Your task to perform on an android device: turn notification dots on Image 0: 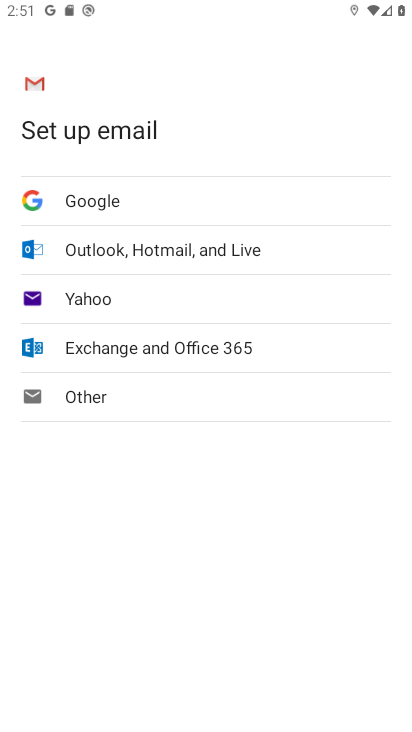
Step 0: press back button
Your task to perform on an android device: turn notification dots on Image 1: 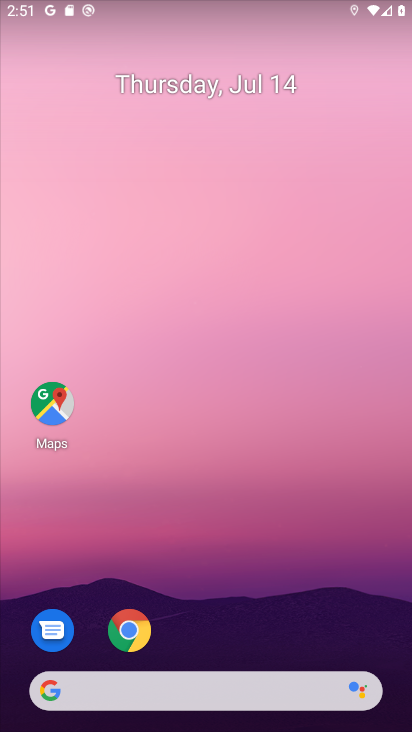
Step 1: drag from (176, 452) to (131, 301)
Your task to perform on an android device: turn notification dots on Image 2: 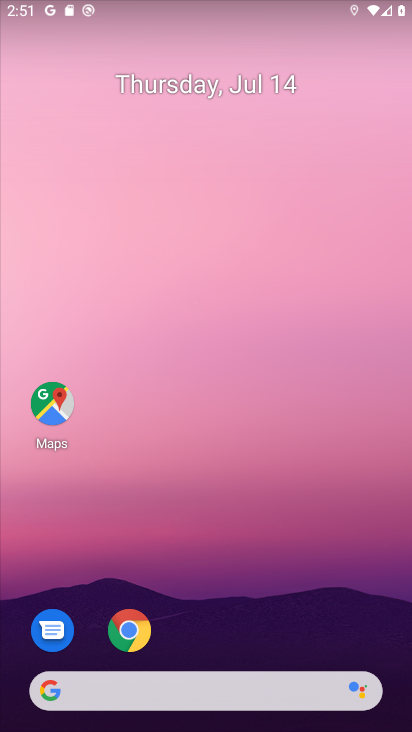
Step 2: drag from (219, 628) to (93, 127)
Your task to perform on an android device: turn notification dots on Image 3: 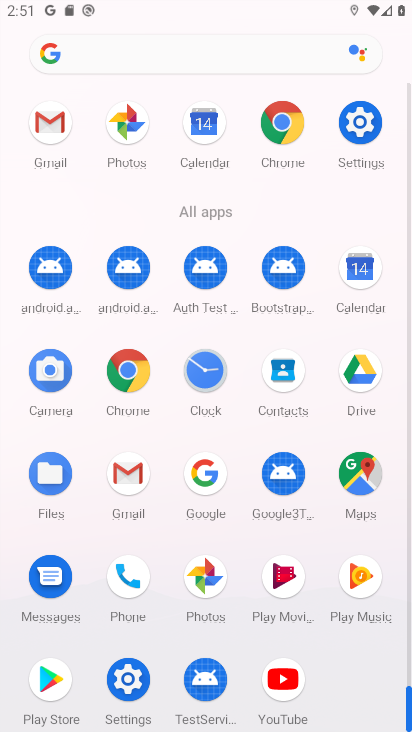
Step 3: click (357, 115)
Your task to perform on an android device: turn notification dots on Image 4: 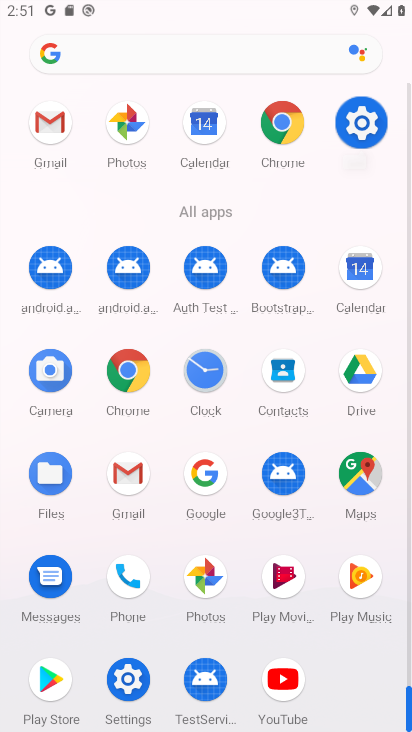
Step 4: click (357, 115)
Your task to perform on an android device: turn notification dots on Image 5: 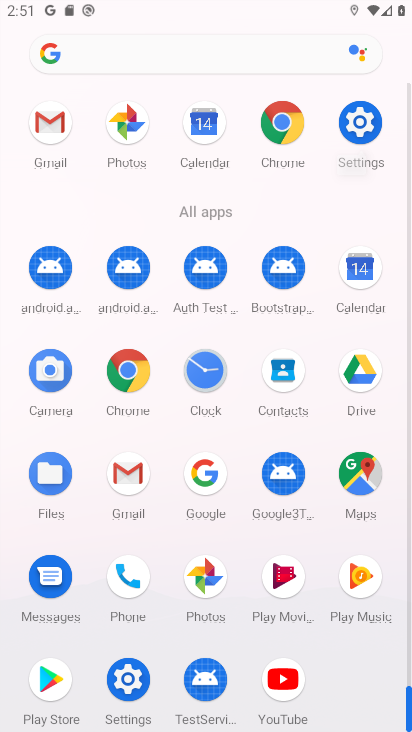
Step 5: click (357, 115)
Your task to perform on an android device: turn notification dots on Image 6: 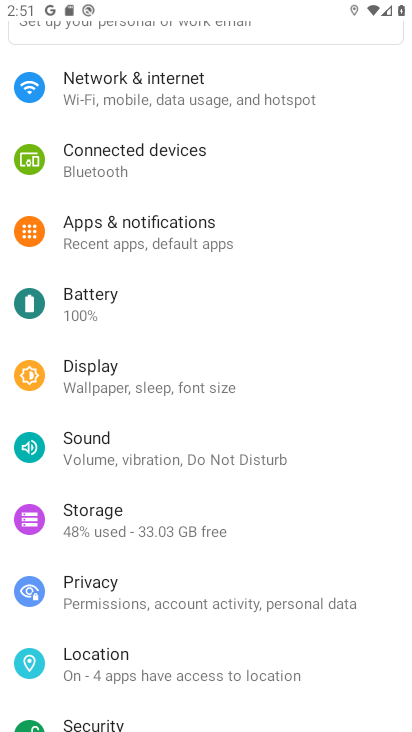
Step 6: click (357, 115)
Your task to perform on an android device: turn notification dots on Image 7: 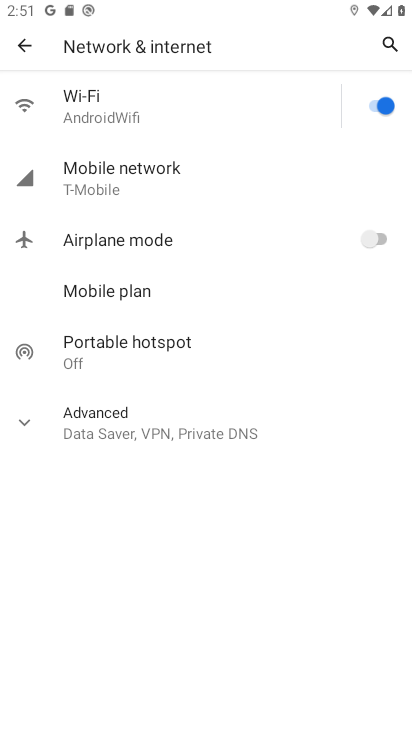
Step 7: click (22, 33)
Your task to perform on an android device: turn notification dots on Image 8: 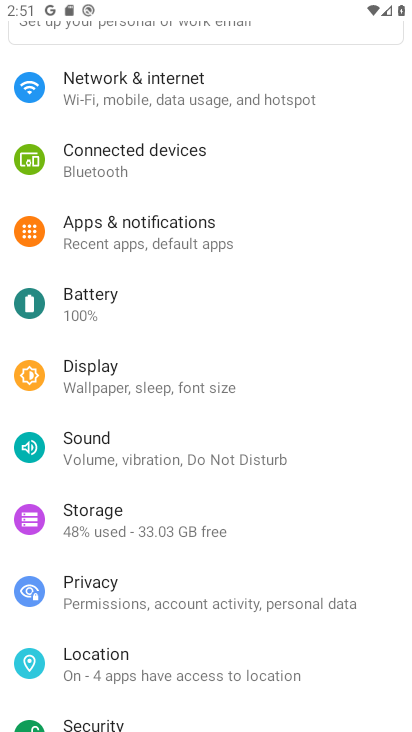
Step 8: click (146, 235)
Your task to perform on an android device: turn notification dots on Image 9: 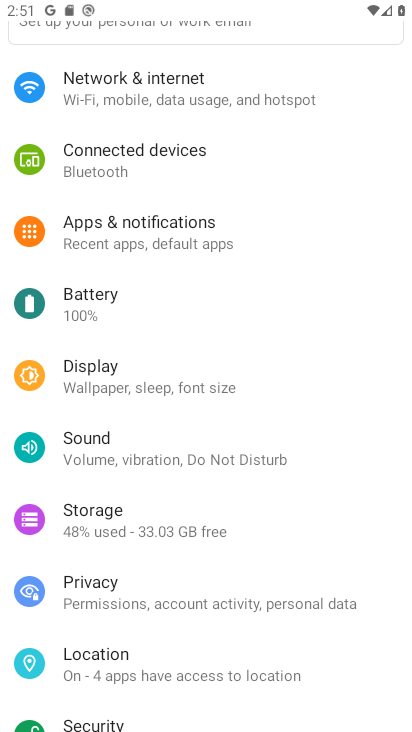
Step 9: click (139, 229)
Your task to perform on an android device: turn notification dots on Image 10: 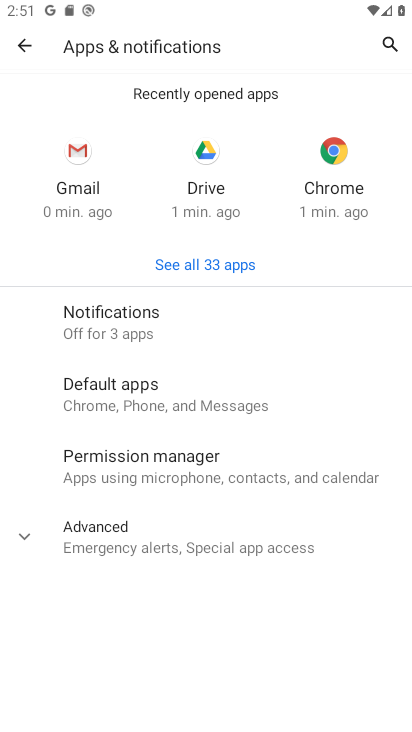
Step 10: click (102, 328)
Your task to perform on an android device: turn notification dots on Image 11: 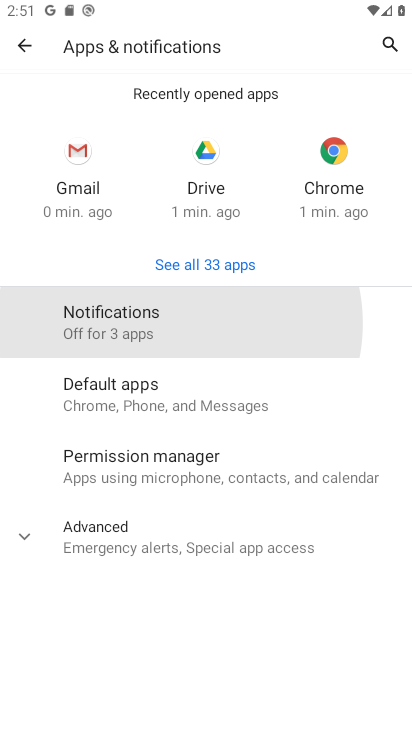
Step 11: click (104, 328)
Your task to perform on an android device: turn notification dots on Image 12: 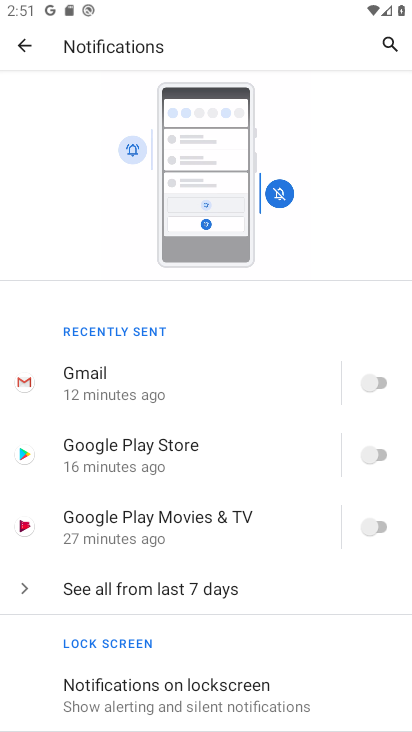
Step 12: drag from (162, 676) to (91, 221)
Your task to perform on an android device: turn notification dots on Image 13: 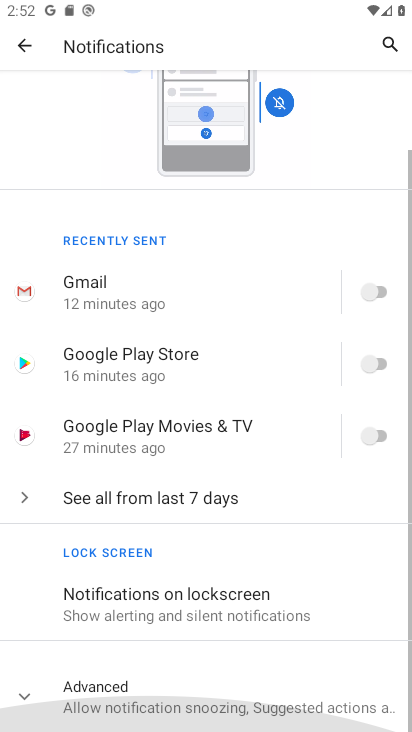
Step 13: drag from (190, 461) to (153, 96)
Your task to perform on an android device: turn notification dots on Image 14: 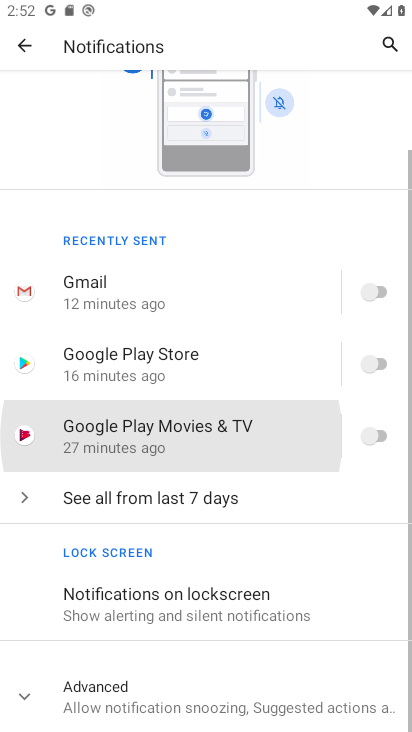
Step 14: drag from (152, 427) to (141, 215)
Your task to perform on an android device: turn notification dots on Image 15: 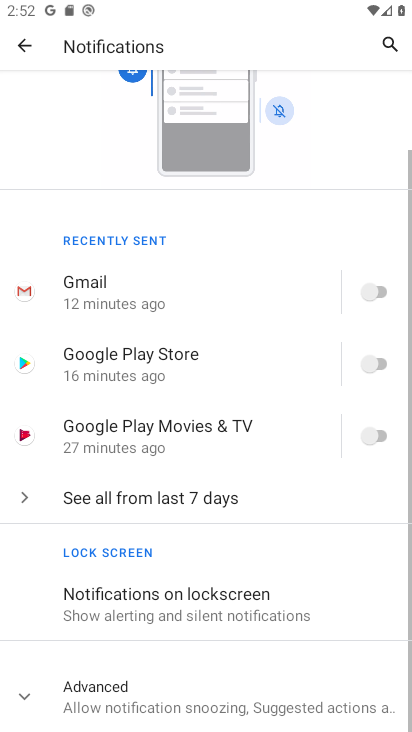
Step 15: click (101, 704)
Your task to perform on an android device: turn notification dots on Image 16: 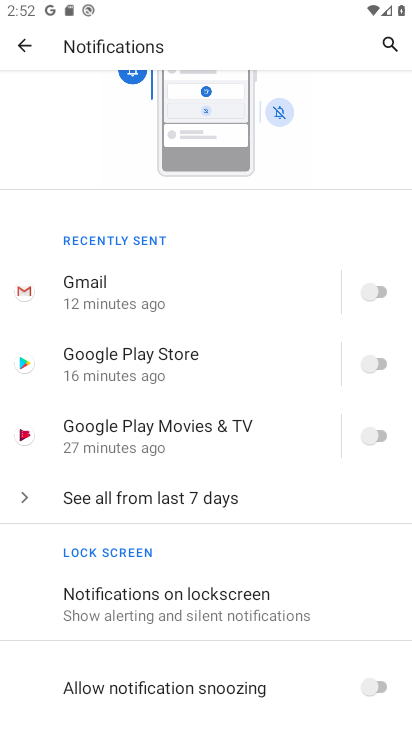
Step 16: task complete